Your task to perform on an android device: open device folders in google photos Image 0: 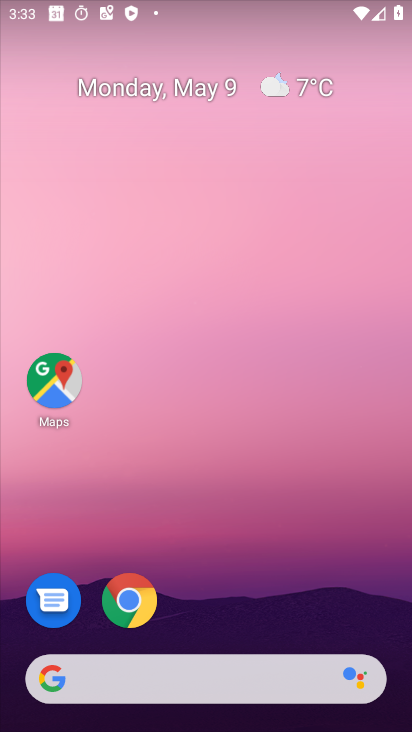
Step 0: drag from (333, 586) to (239, 48)
Your task to perform on an android device: open device folders in google photos Image 1: 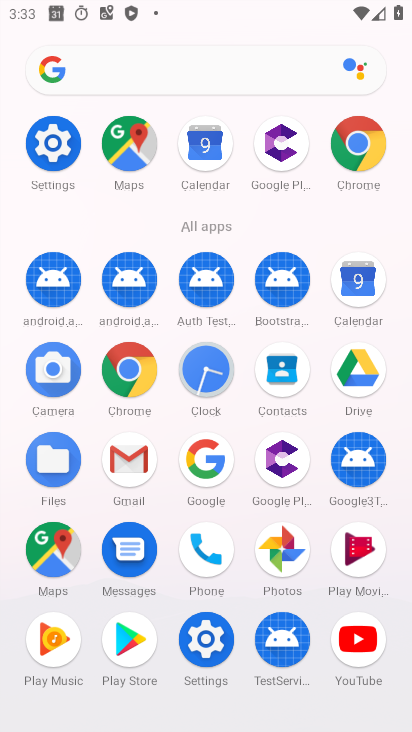
Step 1: click (278, 563)
Your task to perform on an android device: open device folders in google photos Image 2: 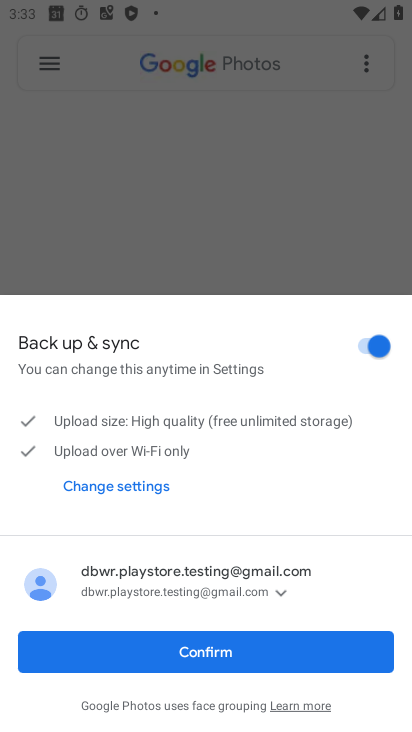
Step 2: click (222, 650)
Your task to perform on an android device: open device folders in google photos Image 3: 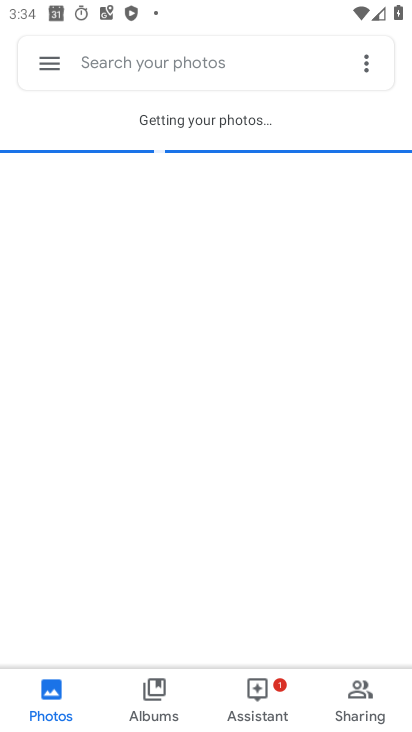
Step 3: click (44, 64)
Your task to perform on an android device: open device folders in google photos Image 4: 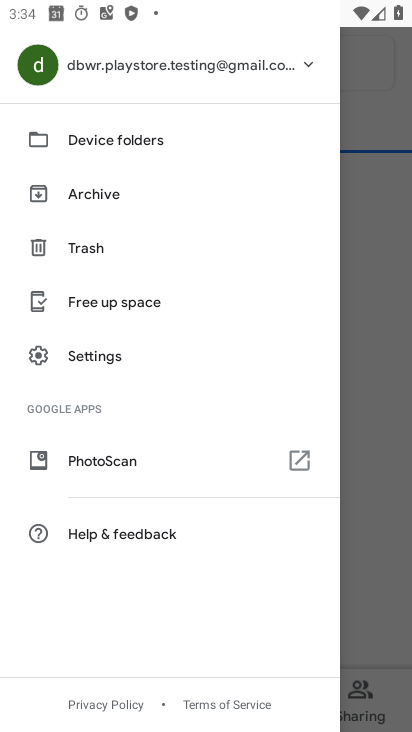
Step 4: click (120, 154)
Your task to perform on an android device: open device folders in google photos Image 5: 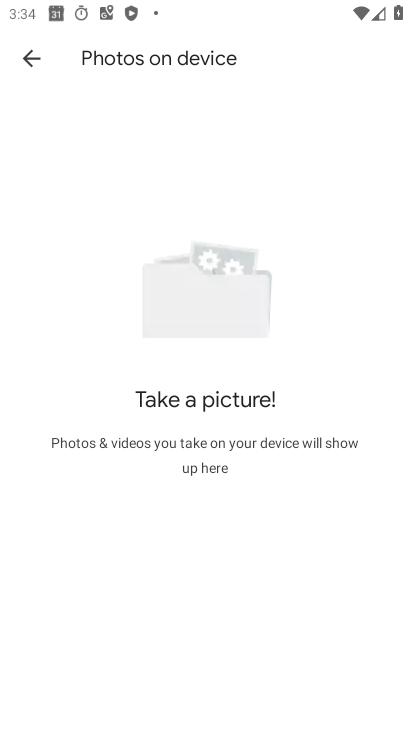
Step 5: task complete